Your task to perform on an android device: Go to Yahoo.com Image 0: 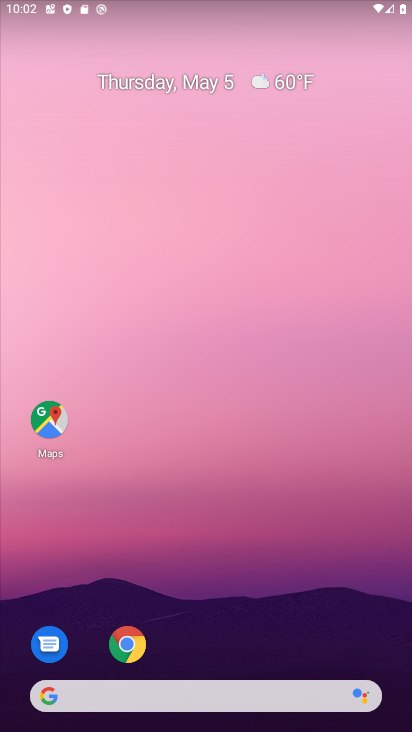
Step 0: click (130, 654)
Your task to perform on an android device: Go to Yahoo.com Image 1: 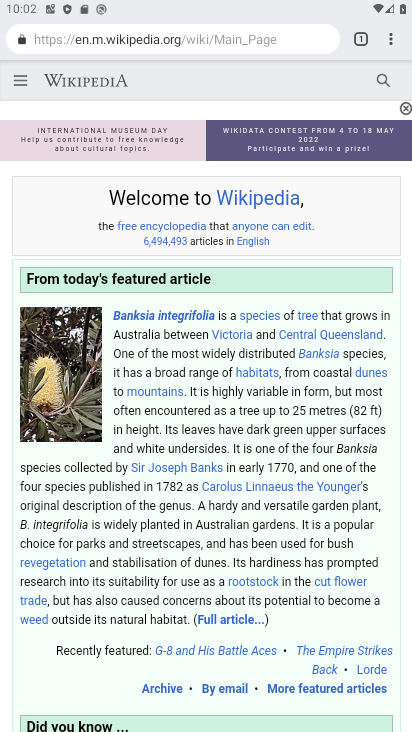
Step 1: click (188, 48)
Your task to perform on an android device: Go to Yahoo.com Image 2: 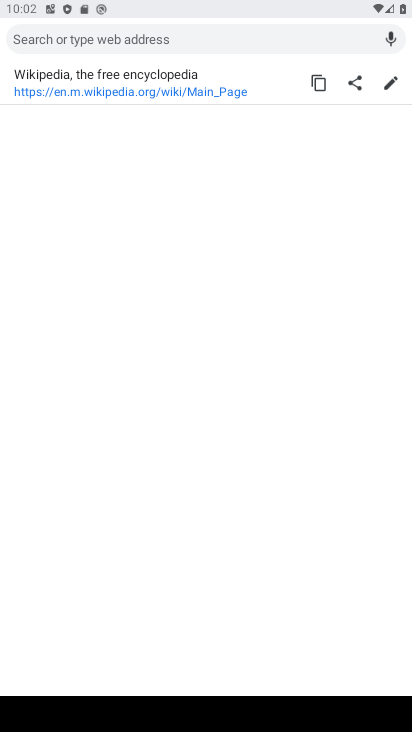
Step 2: type "yahoo.com"
Your task to perform on an android device: Go to Yahoo.com Image 3: 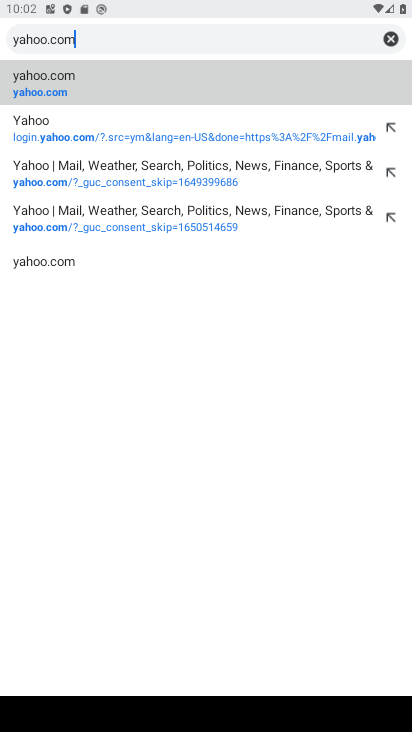
Step 3: click (81, 95)
Your task to perform on an android device: Go to Yahoo.com Image 4: 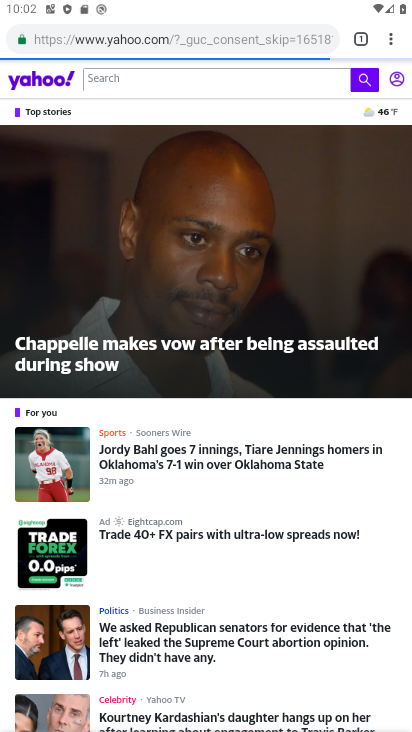
Step 4: task complete